Your task to perform on an android device: find photos in the google photos app Image 0: 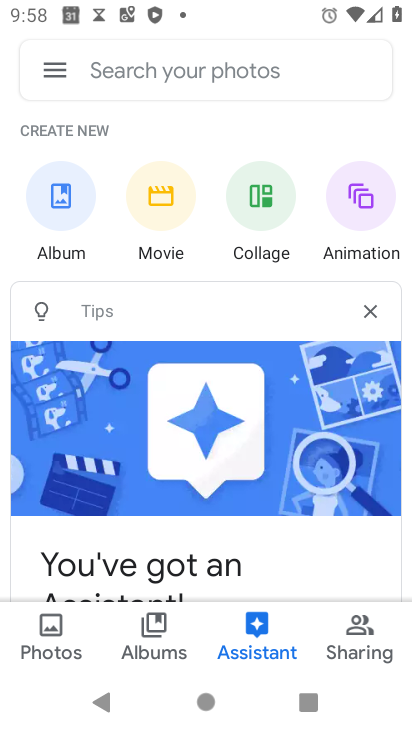
Step 0: press home button
Your task to perform on an android device: find photos in the google photos app Image 1: 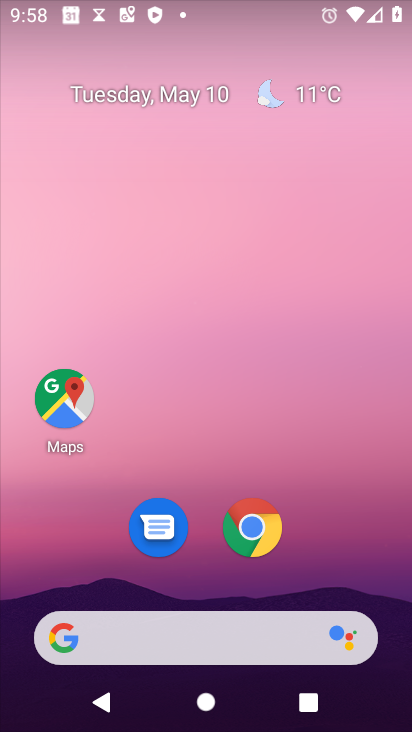
Step 1: drag from (362, 479) to (233, 8)
Your task to perform on an android device: find photos in the google photos app Image 2: 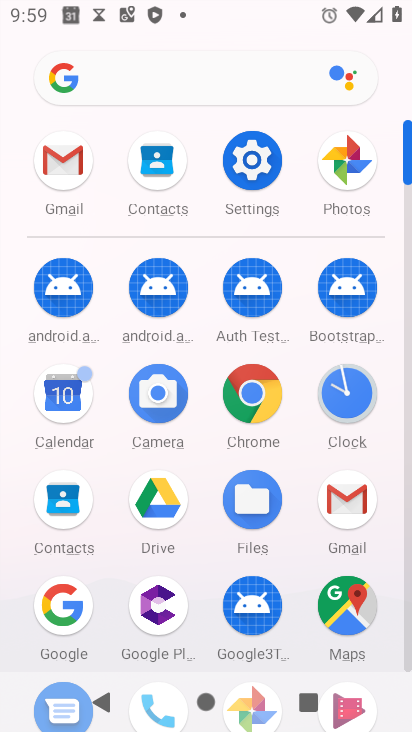
Step 2: click (341, 151)
Your task to perform on an android device: find photos in the google photos app Image 3: 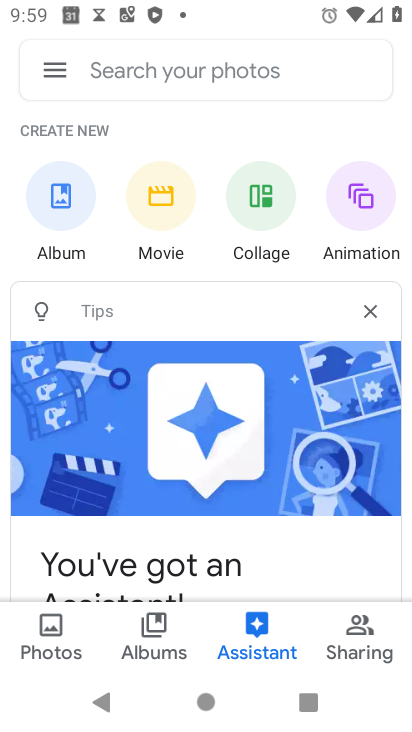
Step 3: click (370, 317)
Your task to perform on an android device: find photos in the google photos app Image 4: 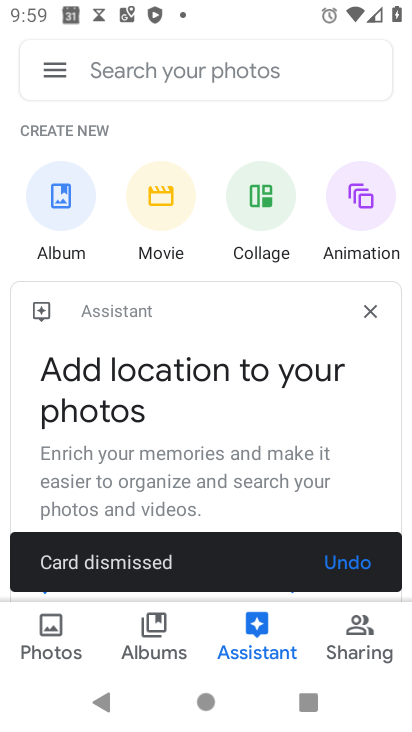
Step 4: click (48, 635)
Your task to perform on an android device: find photos in the google photos app Image 5: 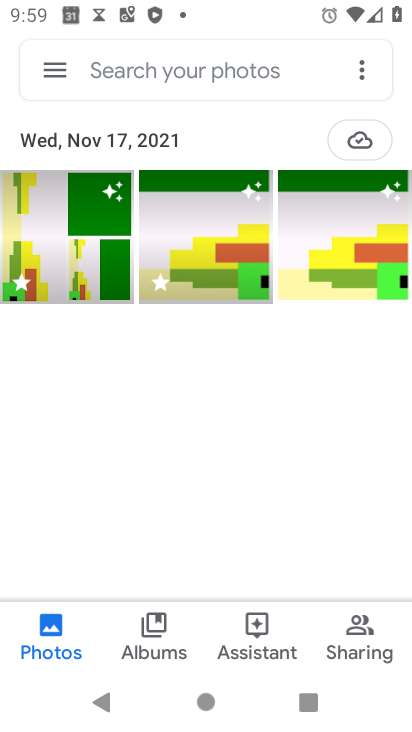
Step 5: task complete